Your task to perform on an android device: open app "Adobe Acrobat Reader" (install if not already installed) and enter user name: "nondescriptly@inbox.com" and password: "negating" Image 0: 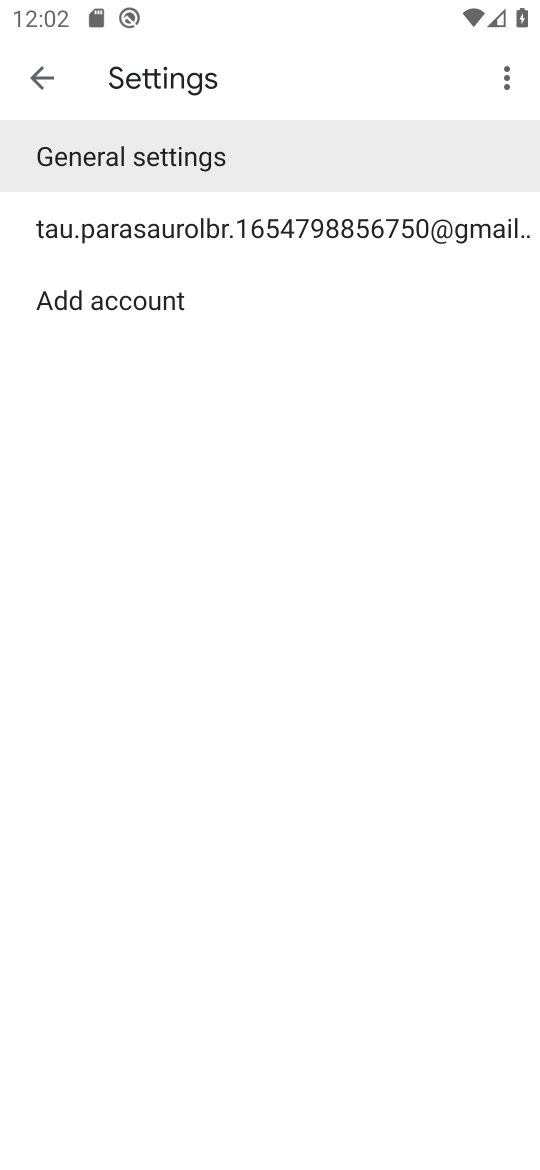
Step 0: press home button
Your task to perform on an android device: open app "Adobe Acrobat Reader" (install if not already installed) and enter user name: "nondescriptly@inbox.com" and password: "negating" Image 1: 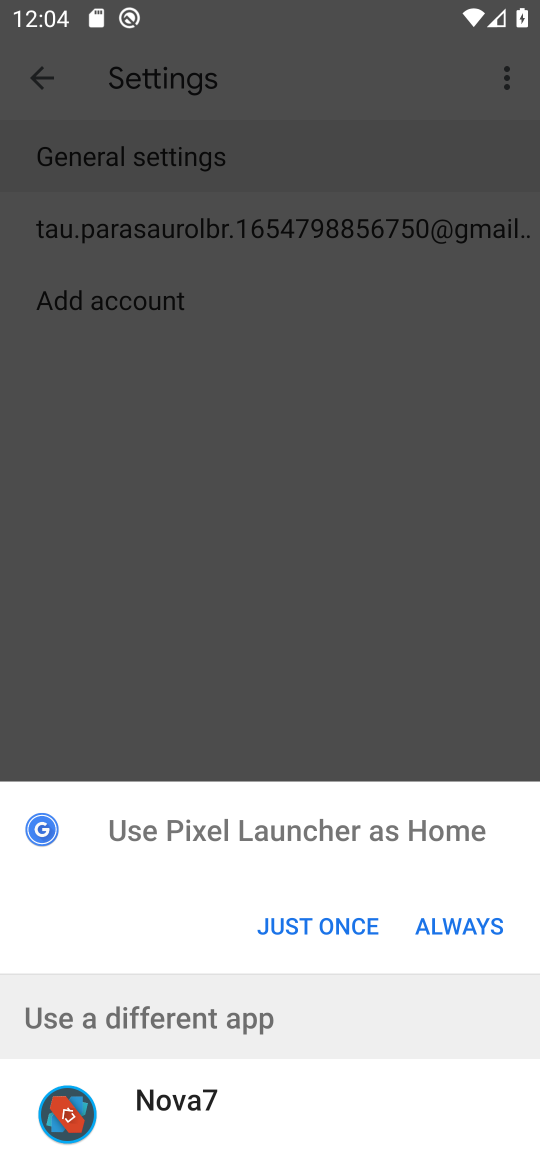
Step 1: press back button
Your task to perform on an android device: open app "Adobe Acrobat Reader" (install if not already installed) and enter user name: "nondescriptly@inbox.com" and password: "negating" Image 2: 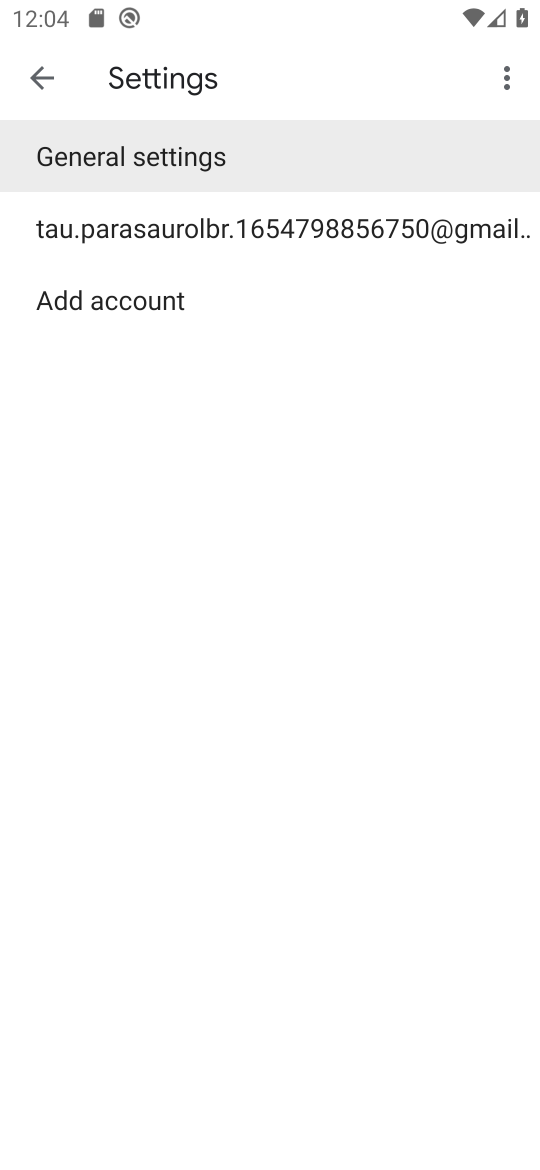
Step 2: click (61, 85)
Your task to perform on an android device: open app "Adobe Acrobat Reader" (install if not already installed) and enter user name: "nondescriptly@inbox.com" and password: "negating" Image 3: 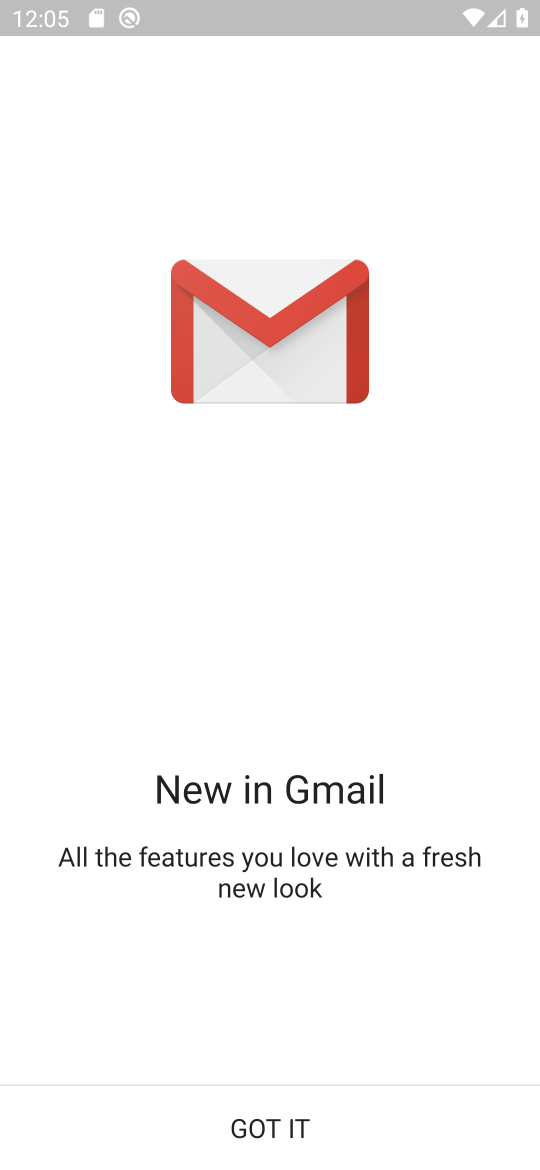
Step 3: press home button
Your task to perform on an android device: open app "Adobe Acrobat Reader" (install if not already installed) and enter user name: "nondescriptly@inbox.com" and password: "negating" Image 4: 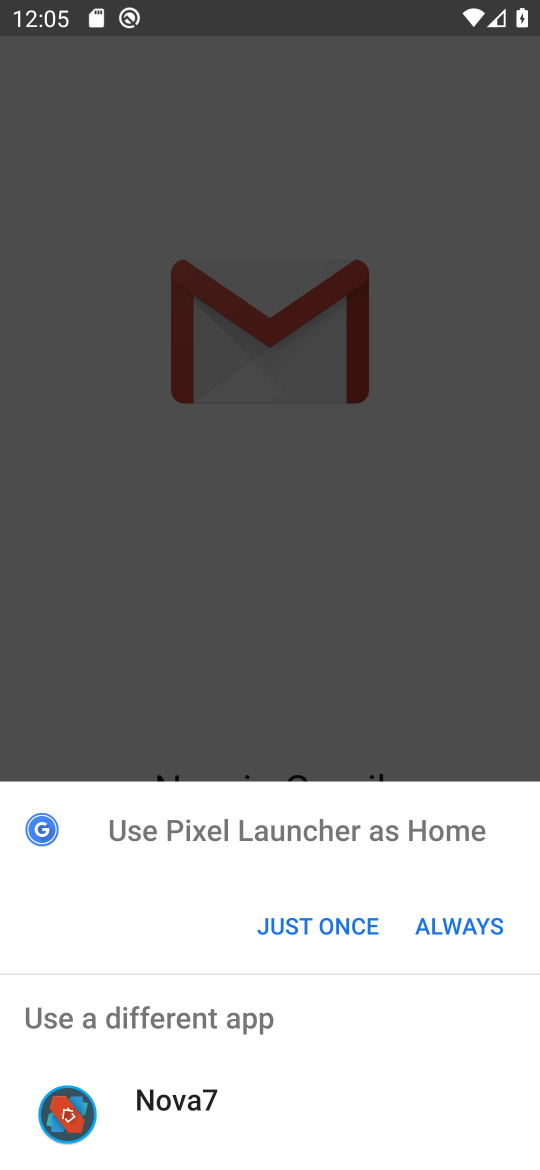
Step 4: click (330, 924)
Your task to perform on an android device: open app "Adobe Acrobat Reader" (install if not already installed) and enter user name: "nondescriptly@inbox.com" and password: "negating" Image 5: 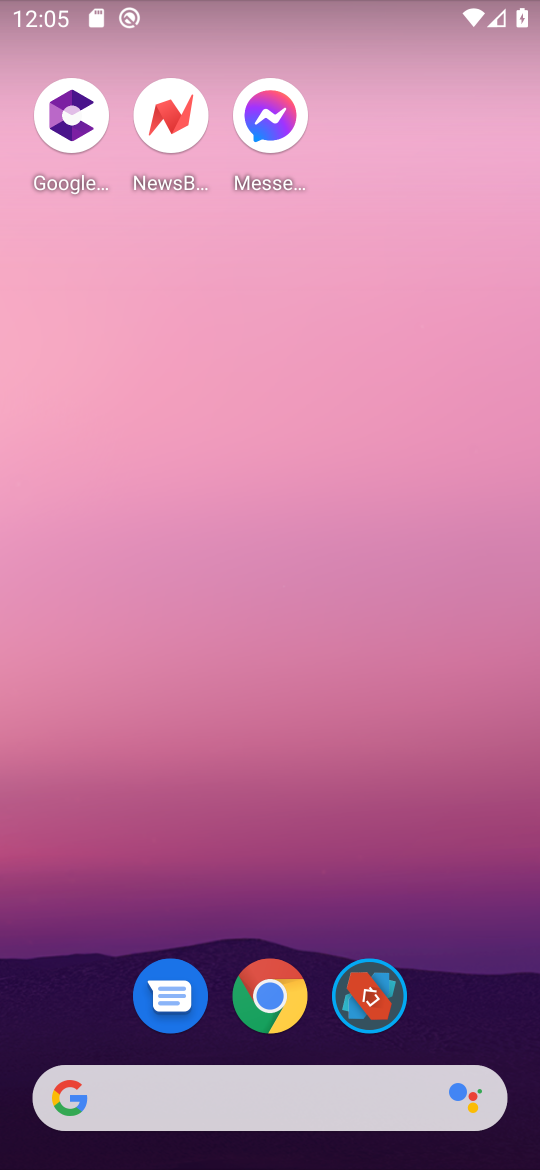
Step 5: drag from (215, 1036) to (460, 32)
Your task to perform on an android device: open app "Adobe Acrobat Reader" (install if not already installed) and enter user name: "nondescriptly@inbox.com" and password: "negating" Image 6: 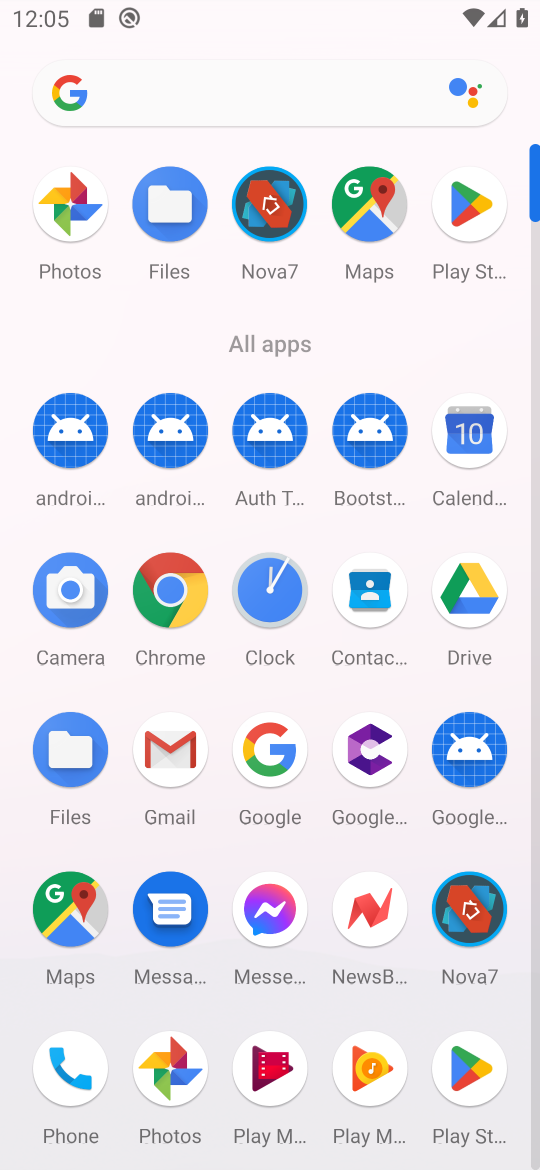
Step 6: click (451, 191)
Your task to perform on an android device: open app "Adobe Acrobat Reader" (install if not already installed) and enter user name: "nondescriptly@inbox.com" and password: "negating" Image 7: 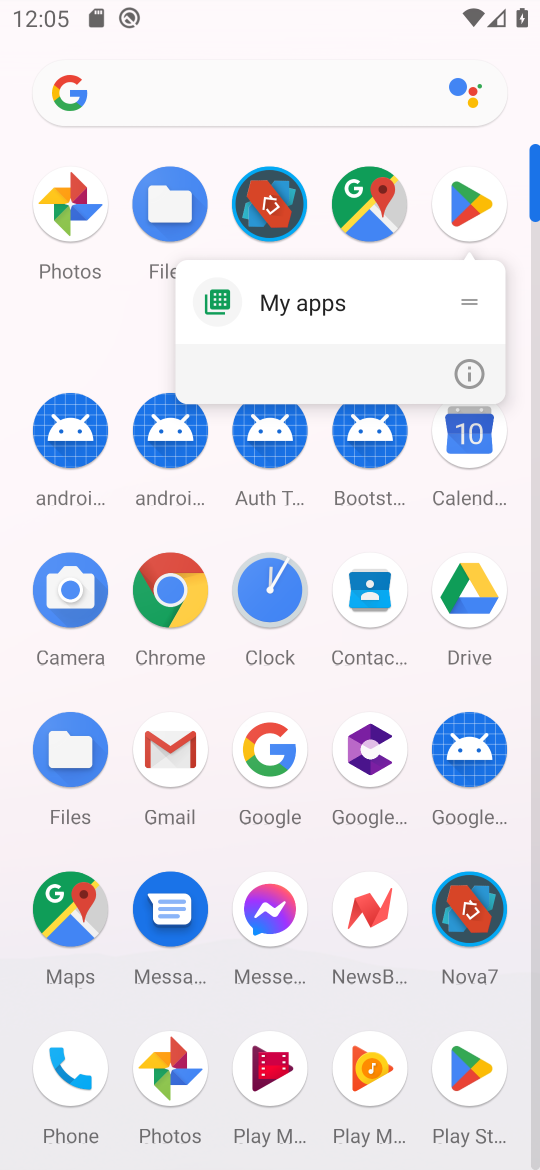
Step 7: click (430, 201)
Your task to perform on an android device: open app "Adobe Acrobat Reader" (install if not already installed) and enter user name: "nondescriptly@inbox.com" and password: "negating" Image 8: 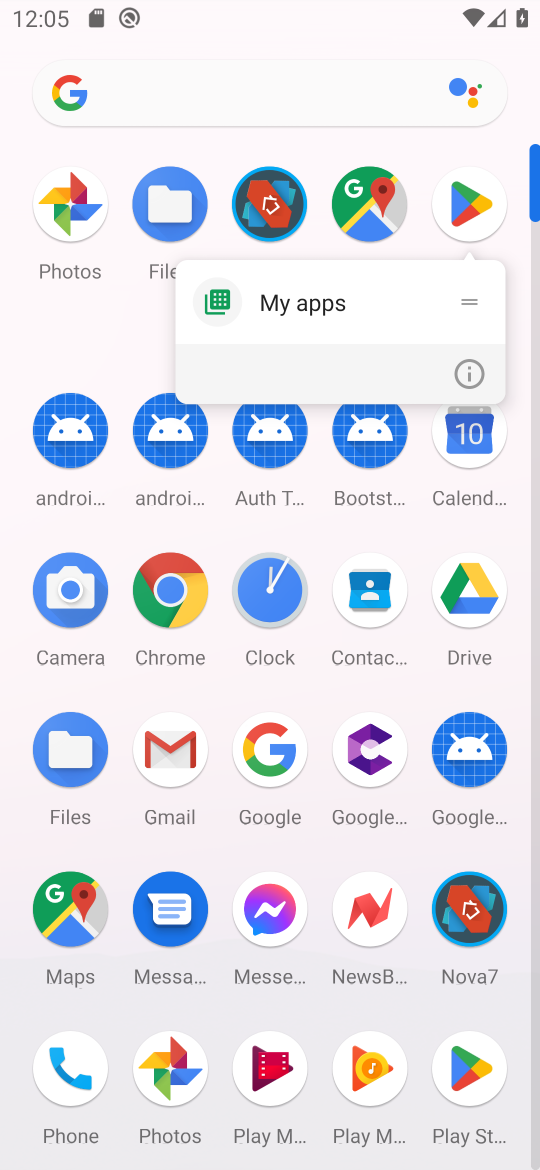
Step 8: click (470, 212)
Your task to perform on an android device: open app "Adobe Acrobat Reader" (install if not already installed) and enter user name: "nondescriptly@inbox.com" and password: "negating" Image 9: 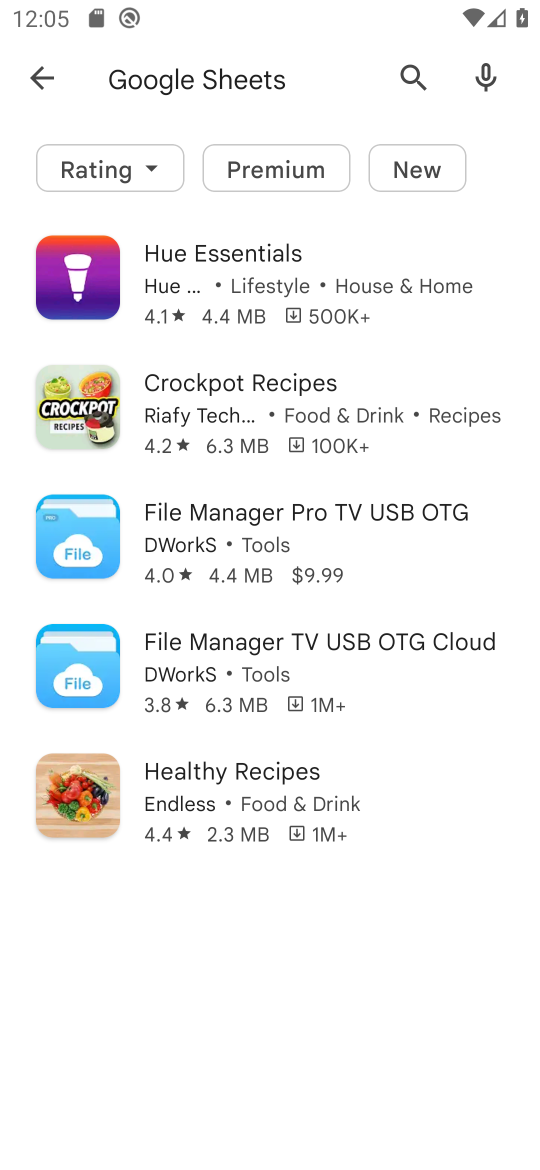
Step 9: click (65, 75)
Your task to perform on an android device: open app "Adobe Acrobat Reader" (install if not already installed) and enter user name: "nondescriptly@inbox.com" and password: "negating" Image 10: 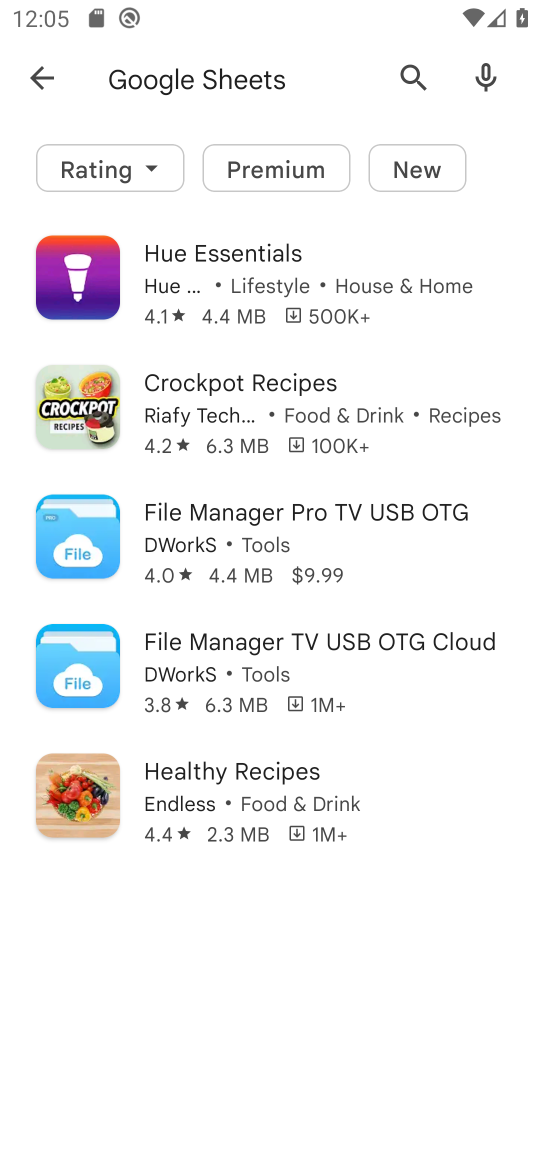
Step 10: click (57, 74)
Your task to perform on an android device: open app "Adobe Acrobat Reader" (install if not already installed) and enter user name: "nondescriptly@inbox.com" and password: "negating" Image 11: 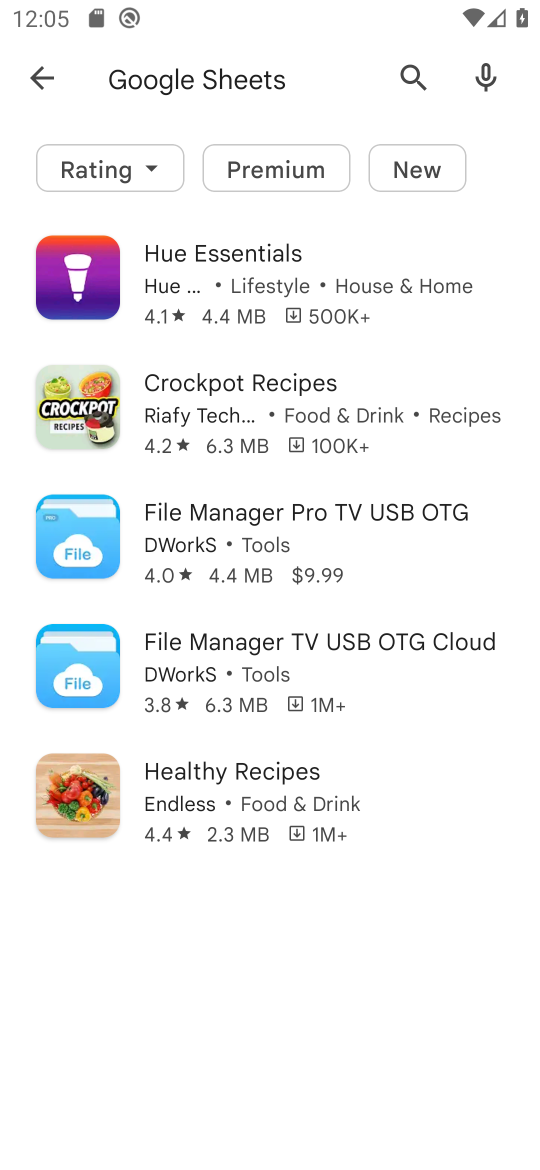
Step 11: click (43, 82)
Your task to perform on an android device: open app "Adobe Acrobat Reader" (install if not already installed) and enter user name: "nondescriptly@inbox.com" and password: "negating" Image 12: 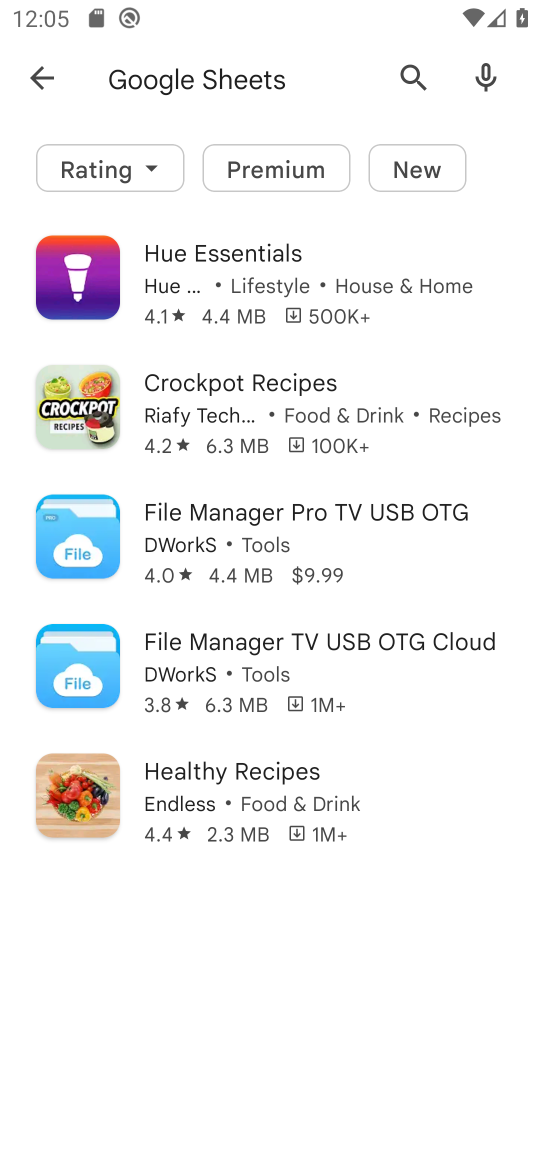
Step 12: press back button
Your task to perform on an android device: open app "Adobe Acrobat Reader" (install if not already installed) and enter user name: "nondescriptly@inbox.com" and password: "negating" Image 13: 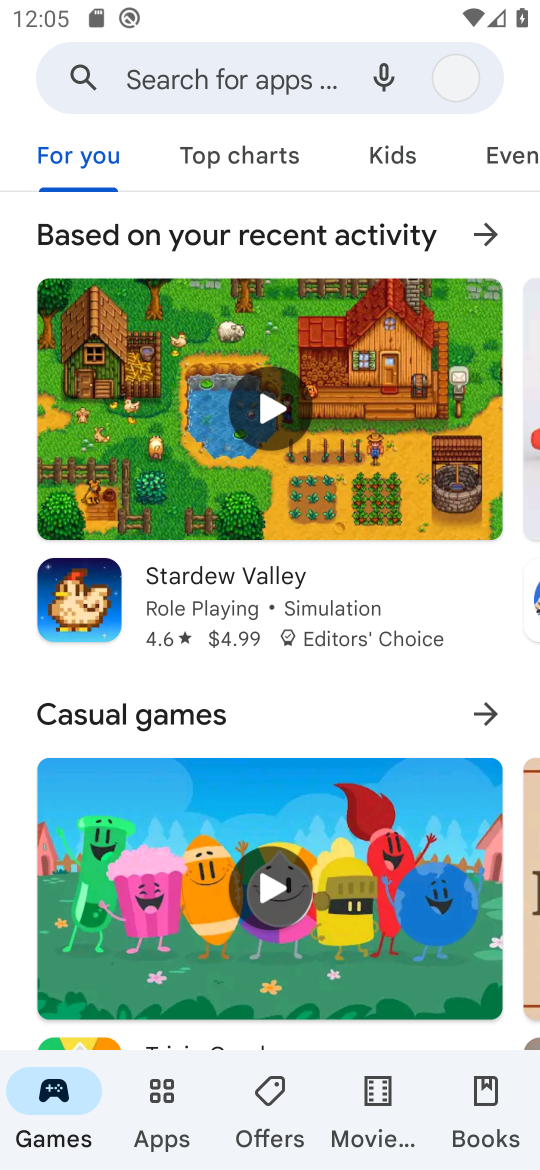
Step 13: click (292, 70)
Your task to perform on an android device: open app "Adobe Acrobat Reader" (install if not already installed) and enter user name: "nondescriptly@inbox.com" and password: "negating" Image 14: 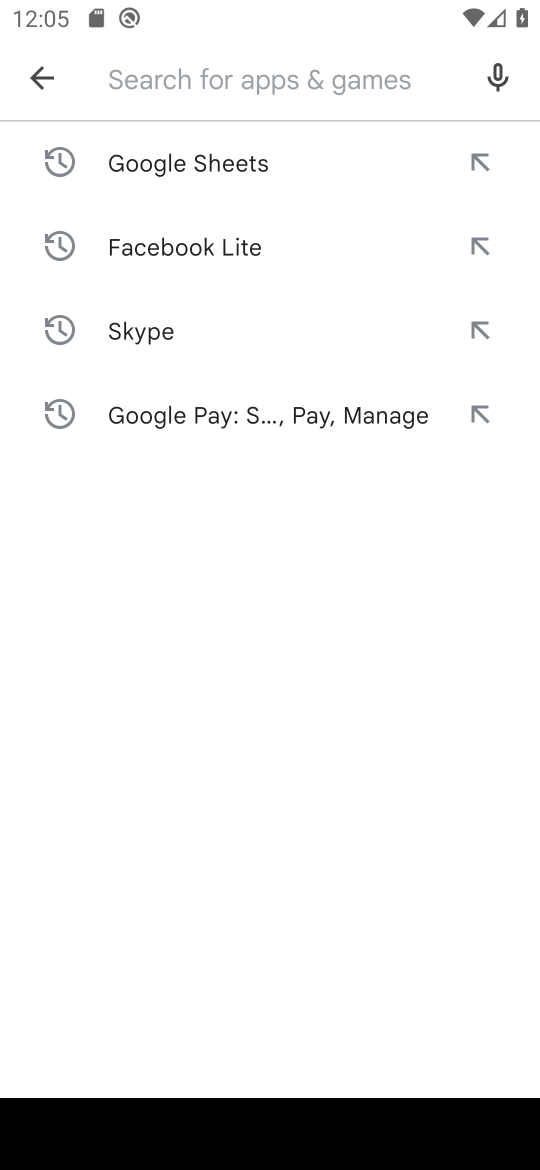
Step 14: type "Adobe Acrobat Reade"
Your task to perform on an android device: open app "Adobe Acrobat Reader" (install if not already installed) and enter user name: "nondescriptly@inbox.com" and password: "negating" Image 15: 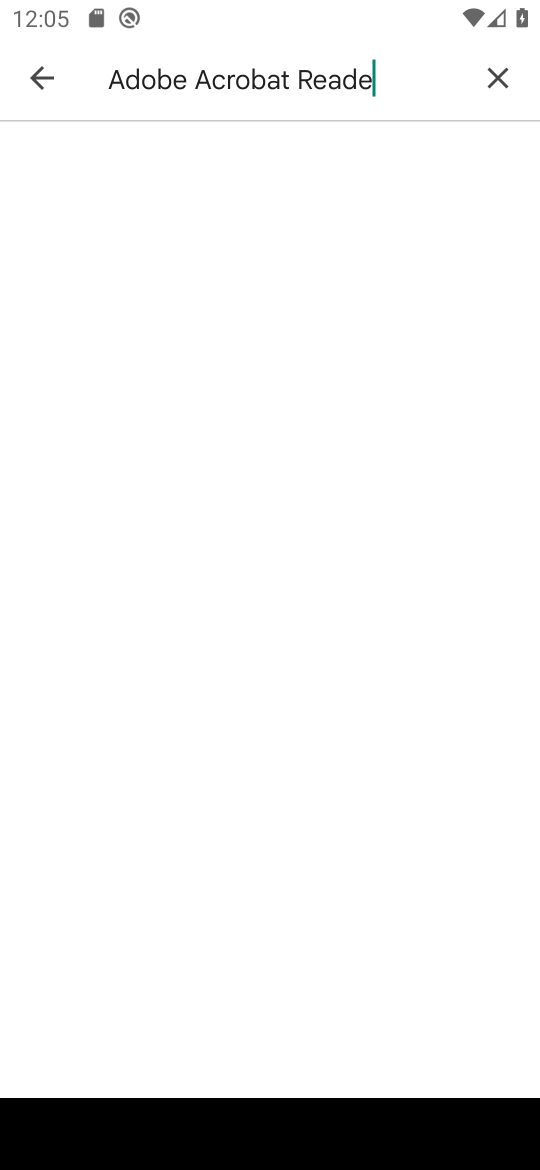
Step 15: press enter
Your task to perform on an android device: open app "Adobe Acrobat Reader" (install if not already installed) and enter user name: "nondescriptly@inbox.com" and password: "negating" Image 16: 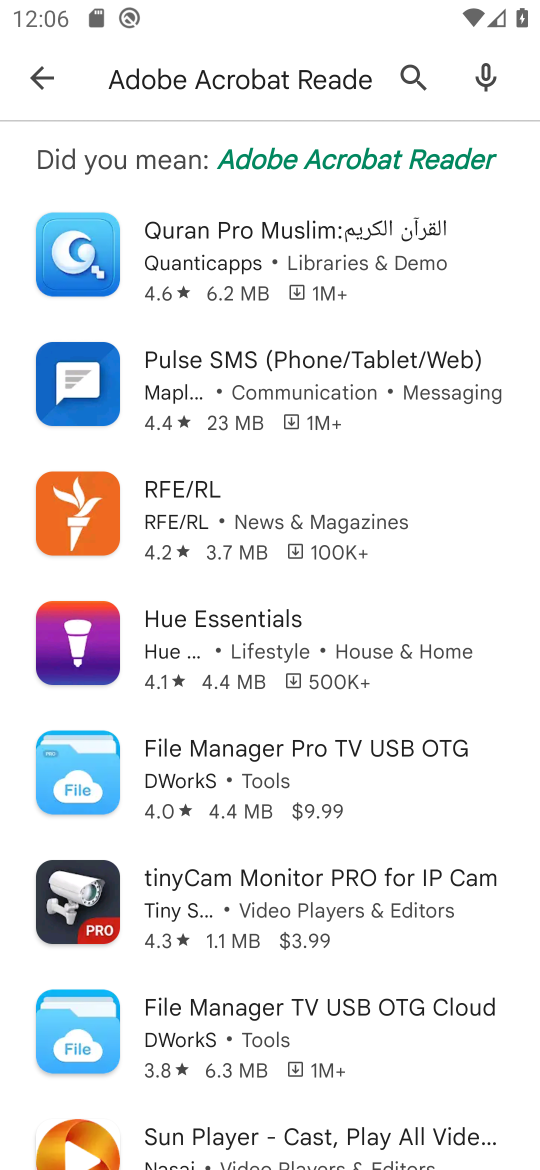
Step 16: task complete